Your task to perform on an android device: Show me popular games on the Play Store Image 0: 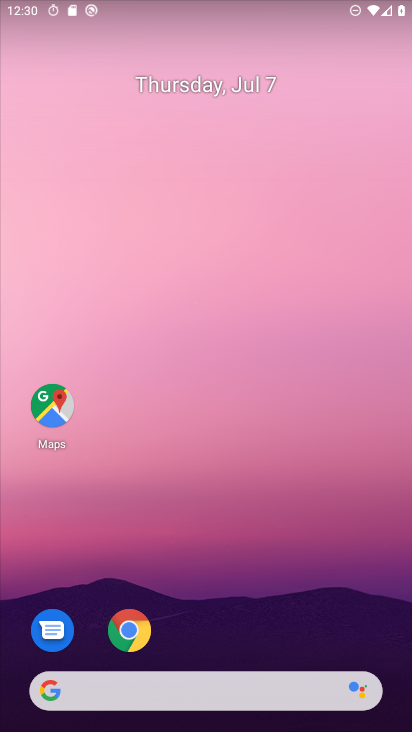
Step 0: drag from (221, 639) to (273, 35)
Your task to perform on an android device: Show me popular games on the Play Store Image 1: 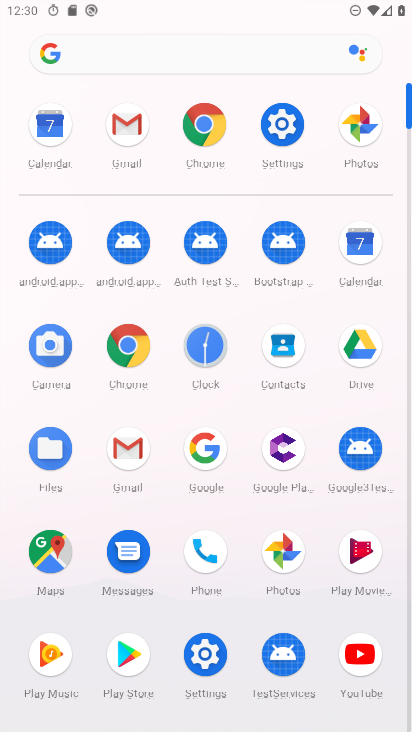
Step 1: click (144, 666)
Your task to perform on an android device: Show me popular games on the Play Store Image 2: 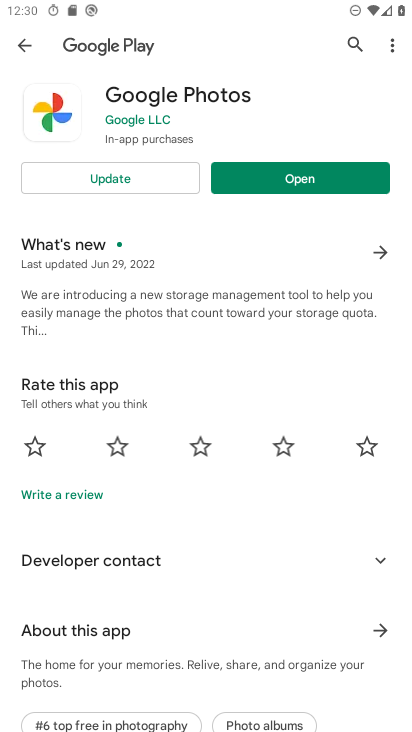
Step 2: click (21, 48)
Your task to perform on an android device: Show me popular games on the Play Store Image 3: 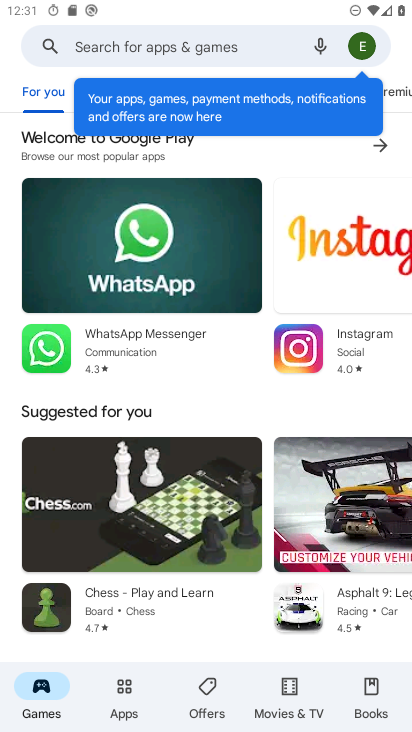
Step 3: click (54, 96)
Your task to perform on an android device: Show me popular games on the Play Store Image 4: 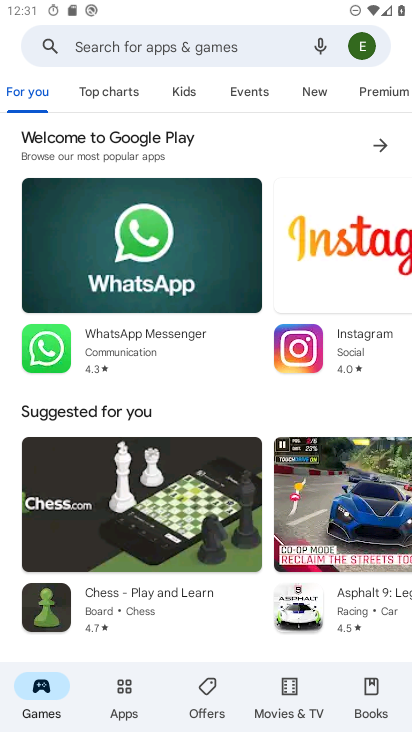
Step 4: click (111, 92)
Your task to perform on an android device: Show me popular games on the Play Store Image 5: 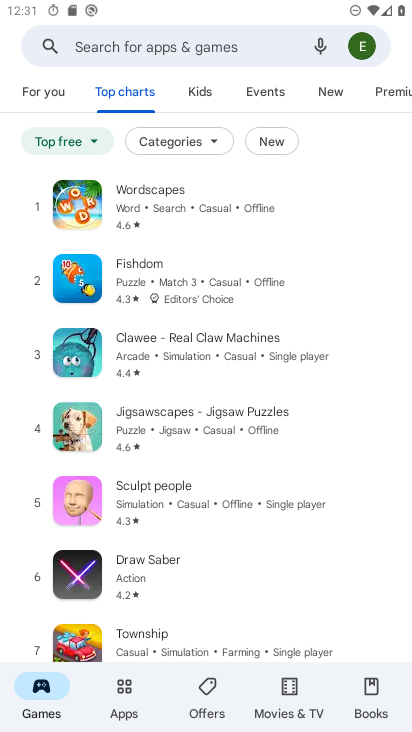
Step 5: task complete